Your task to perform on an android device: Clear the shopping cart on ebay.com. Add "jbl flip 4" to the cart on ebay.com Image 0: 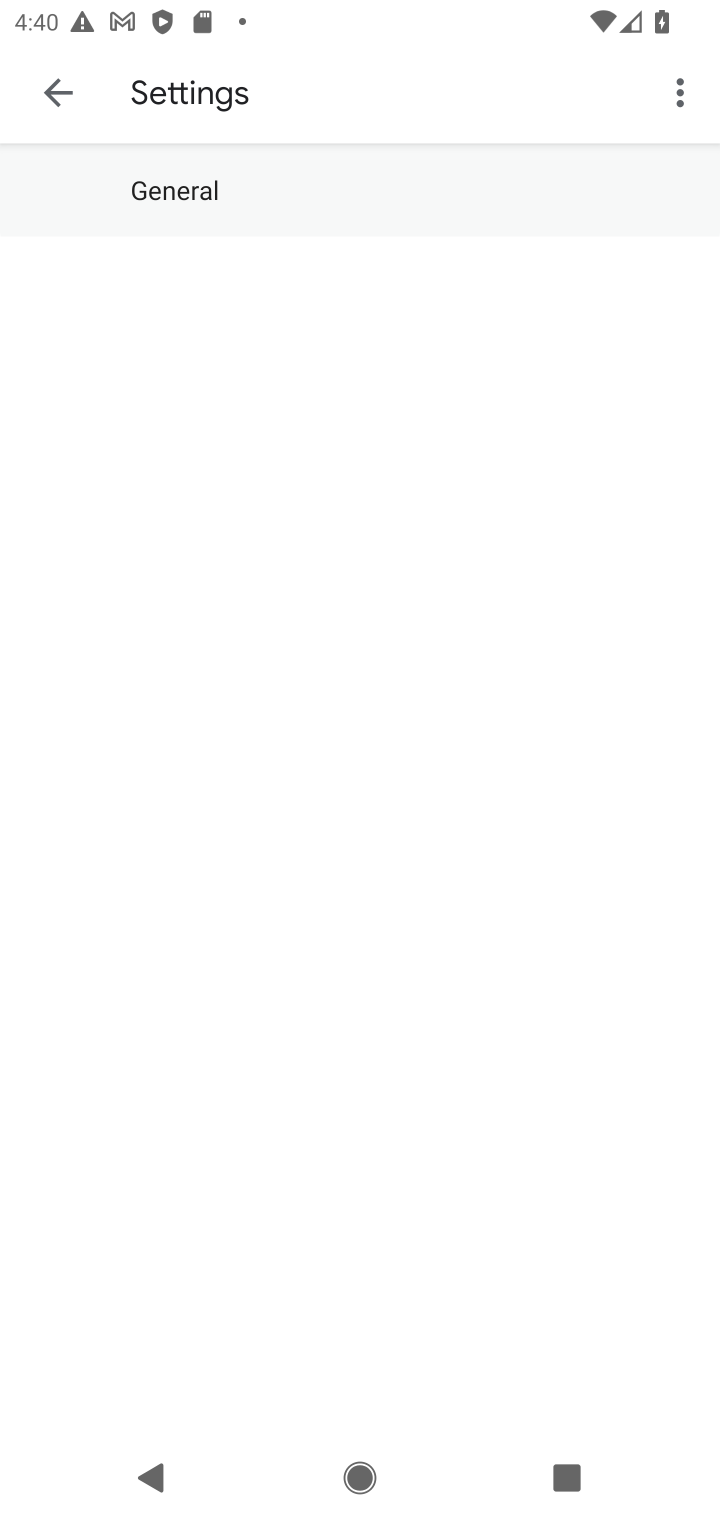
Step 0: press home button
Your task to perform on an android device: Clear the shopping cart on ebay.com. Add "jbl flip 4" to the cart on ebay.com Image 1: 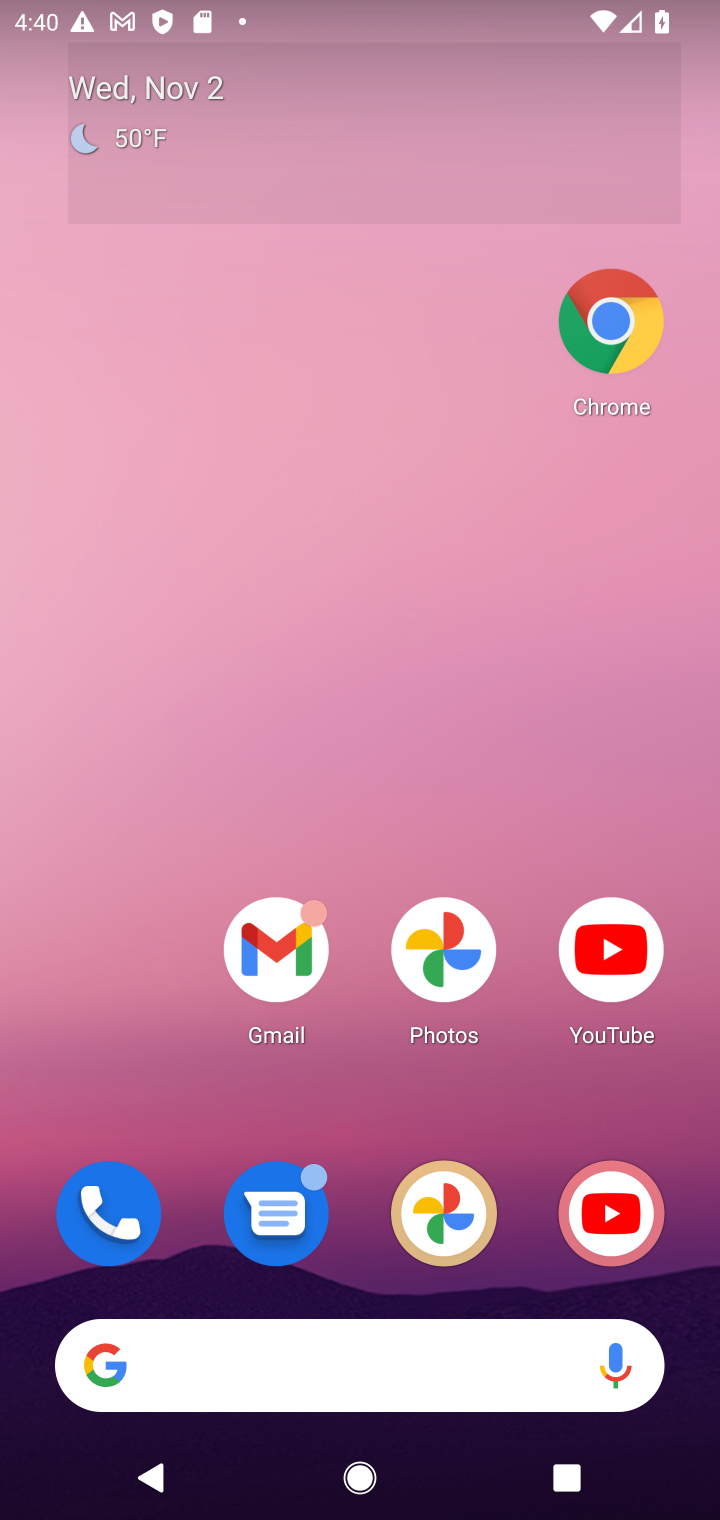
Step 1: drag from (420, 1267) to (454, 170)
Your task to perform on an android device: Clear the shopping cart on ebay.com. Add "jbl flip 4" to the cart on ebay.com Image 2: 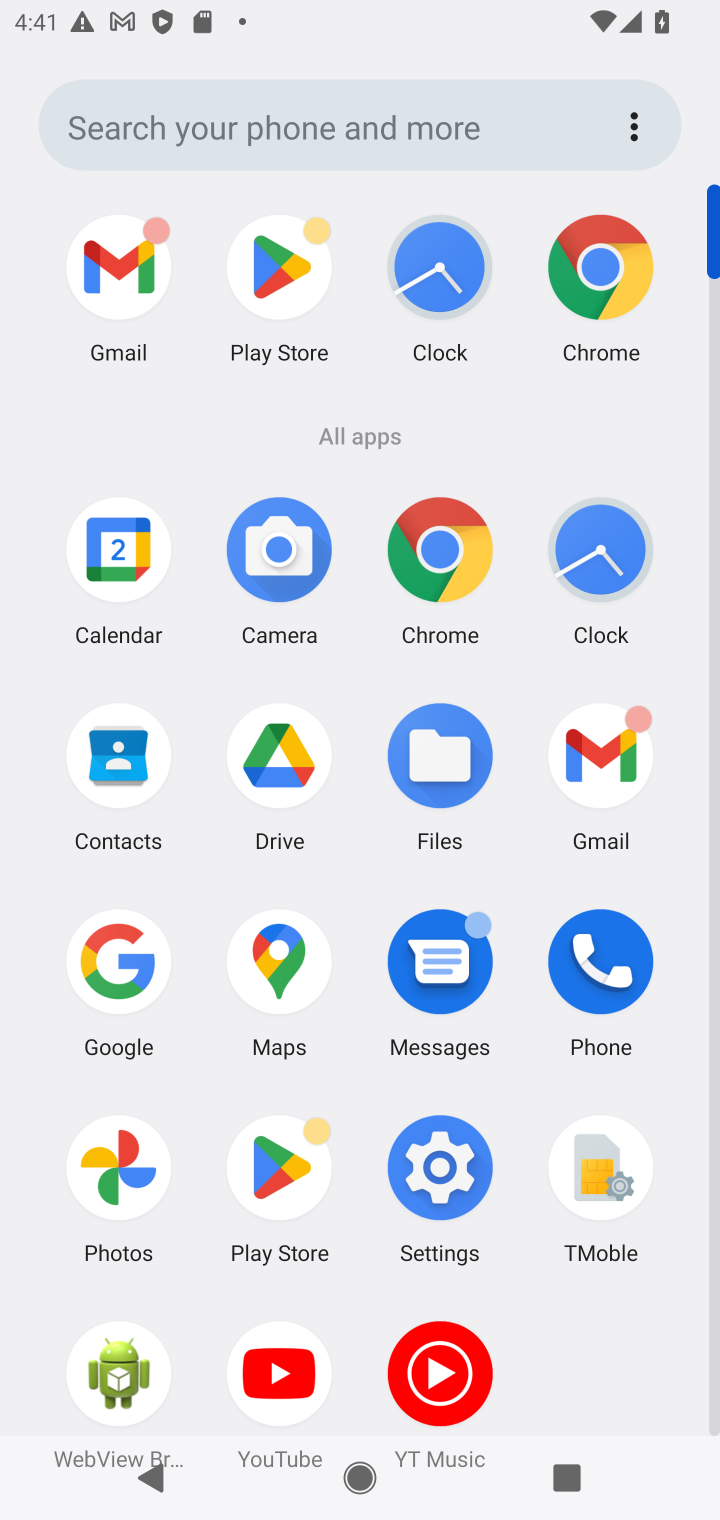
Step 2: click (99, 1007)
Your task to perform on an android device: Clear the shopping cart on ebay.com. Add "jbl flip 4" to the cart on ebay.com Image 3: 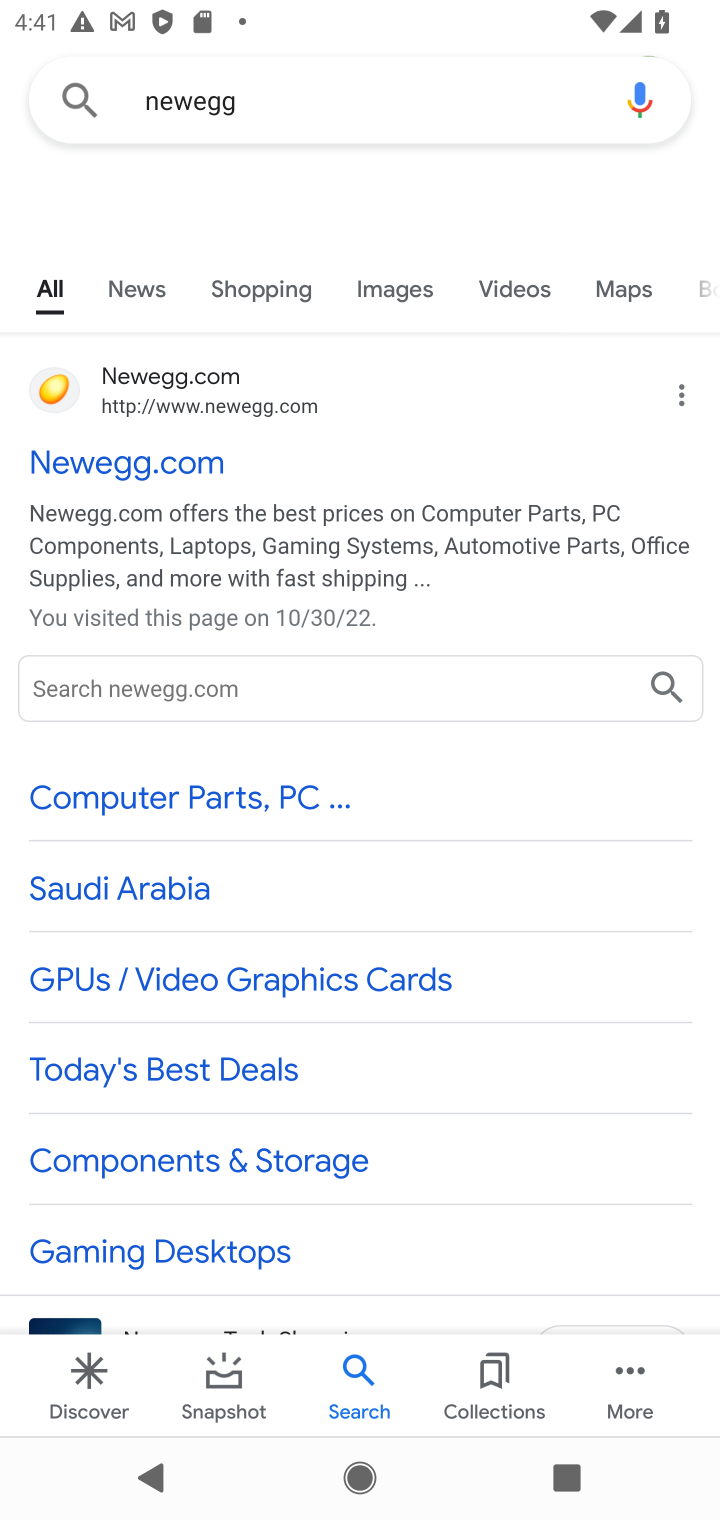
Step 3: click (426, 108)
Your task to perform on an android device: Clear the shopping cart on ebay.com. Add "jbl flip 4" to the cart on ebay.com Image 4: 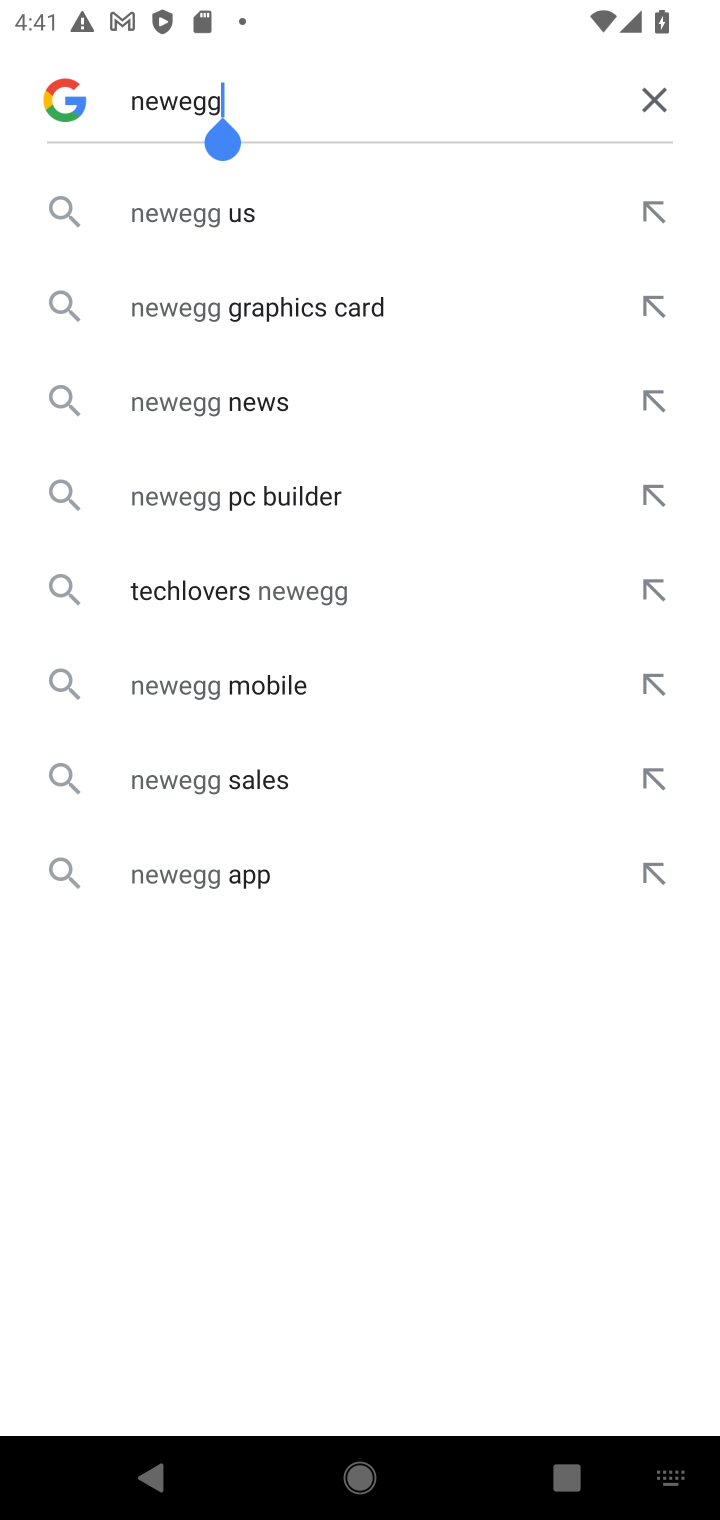
Step 4: click (652, 120)
Your task to perform on an android device: Clear the shopping cart on ebay.com. Add "jbl flip 4" to the cart on ebay.com Image 5: 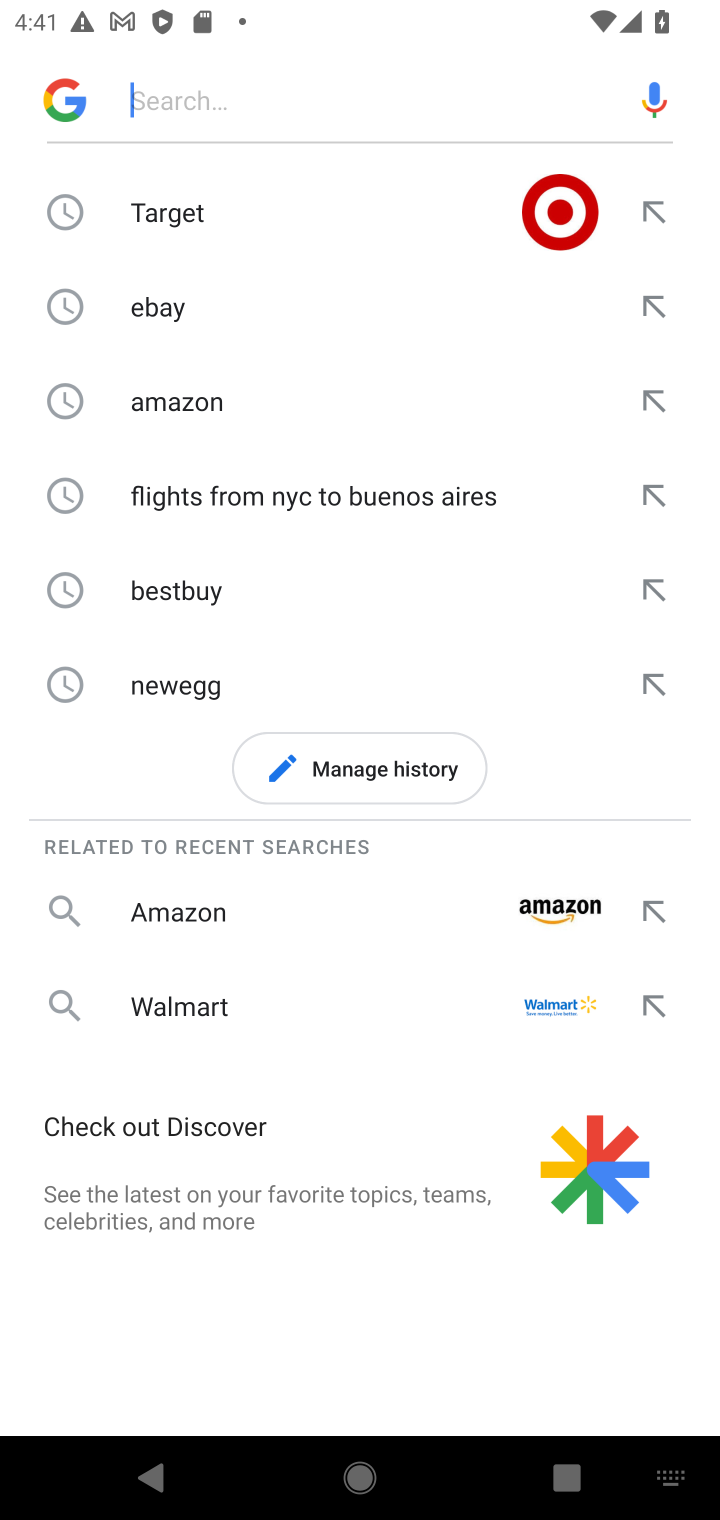
Step 5: type "ebay"
Your task to perform on an android device: Clear the shopping cart on ebay.com. Add "jbl flip 4" to the cart on ebay.com Image 6: 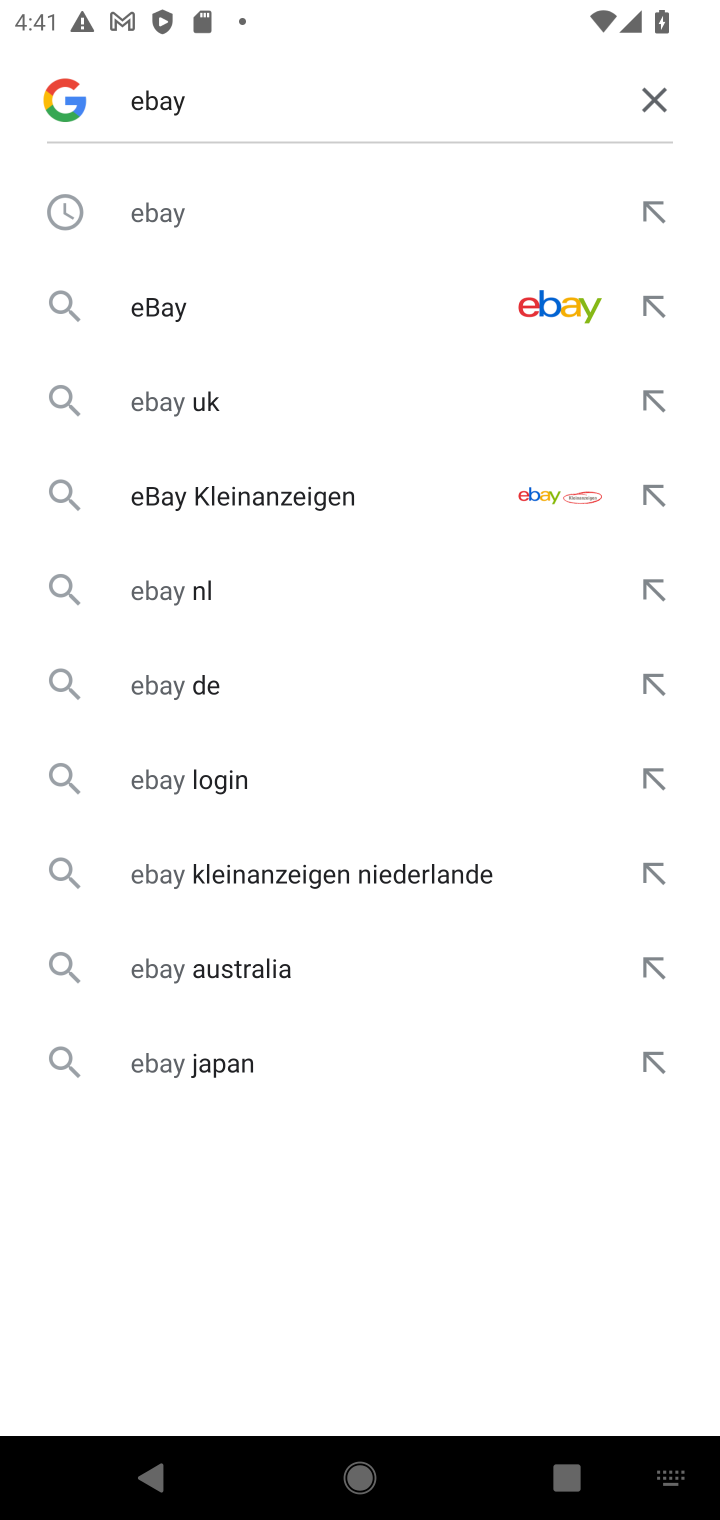
Step 6: click (444, 287)
Your task to perform on an android device: Clear the shopping cart on ebay.com. Add "jbl flip 4" to the cart on ebay.com Image 7: 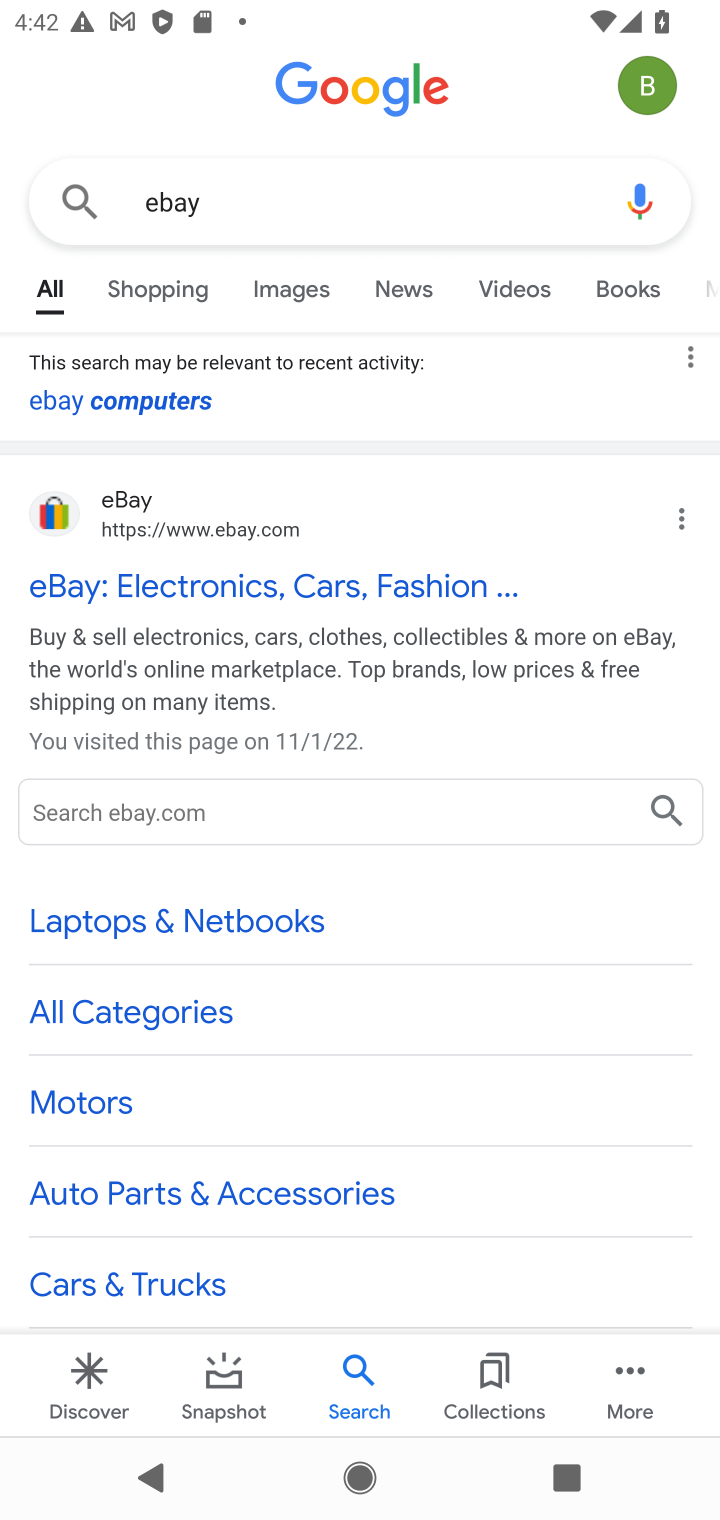
Step 7: click (206, 582)
Your task to perform on an android device: Clear the shopping cart on ebay.com. Add "jbl flip 4" to the cart on ebay.com Image 8: 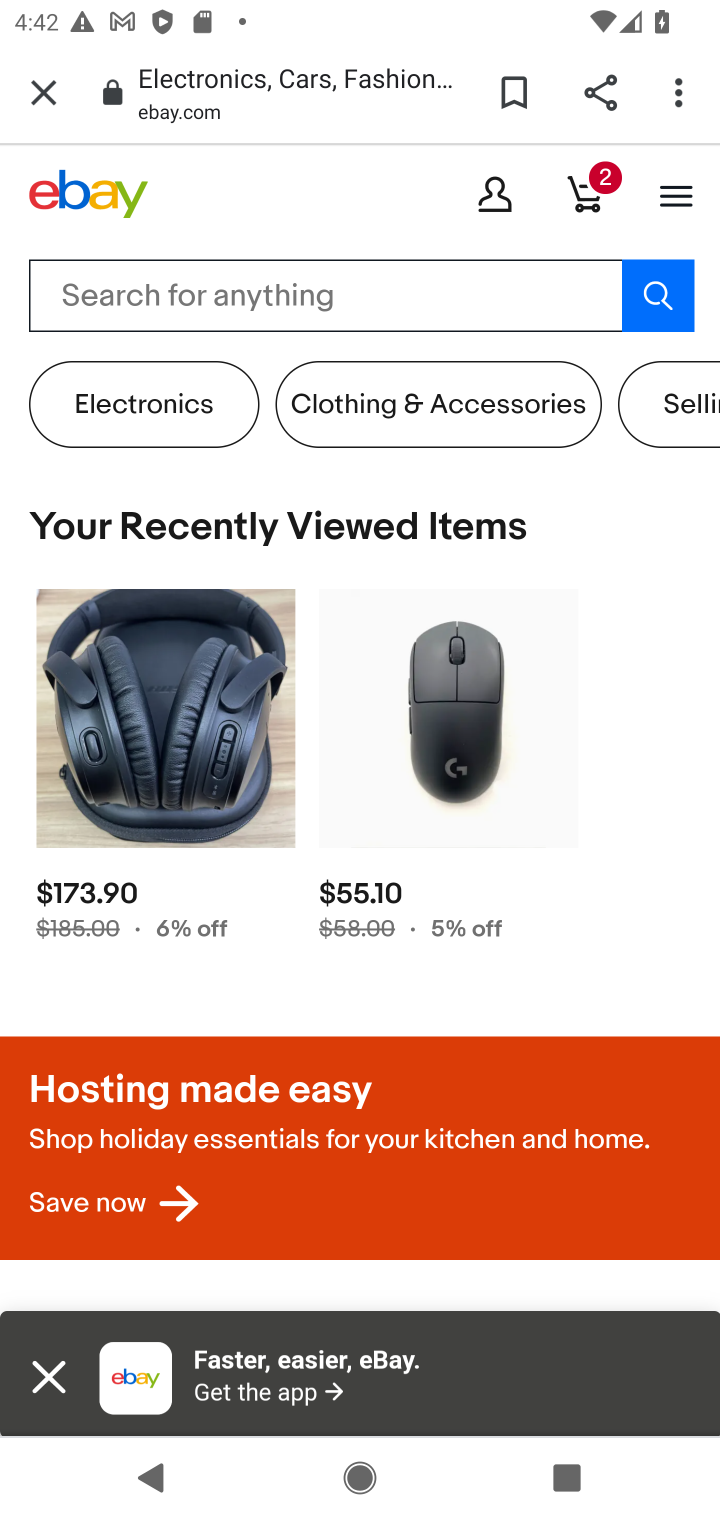
Step 8: click (337, 302)
Your task to perform on an android device: Clear the shopping cart on ebay.com. Add "jbl flip 4" to the cart on ebay.com Image 9: 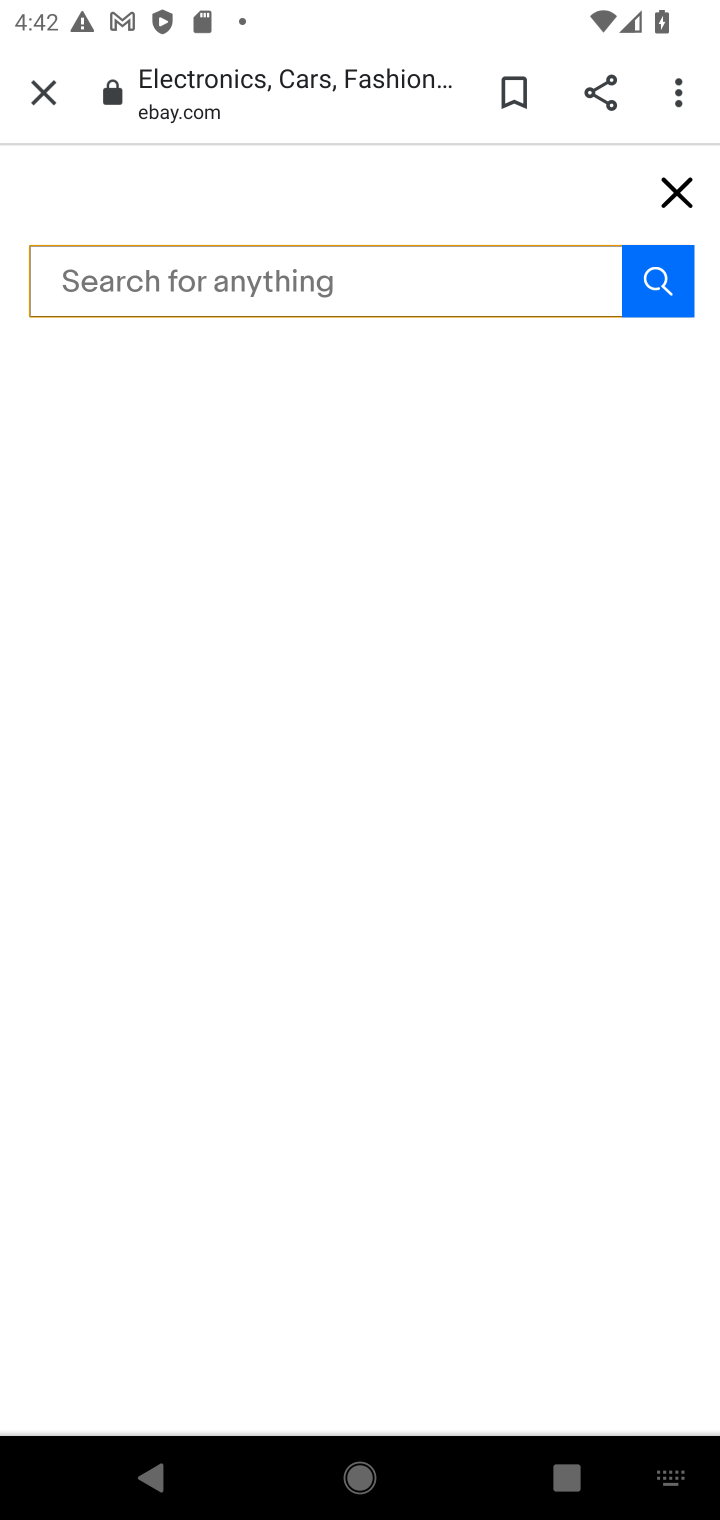
Step 9: type "jbl flip 4"
Your task to perform on an android device: Clear the shopping cart on ebay.com. Add "jbl flip 4" to the cart on ebay.com Image 10: 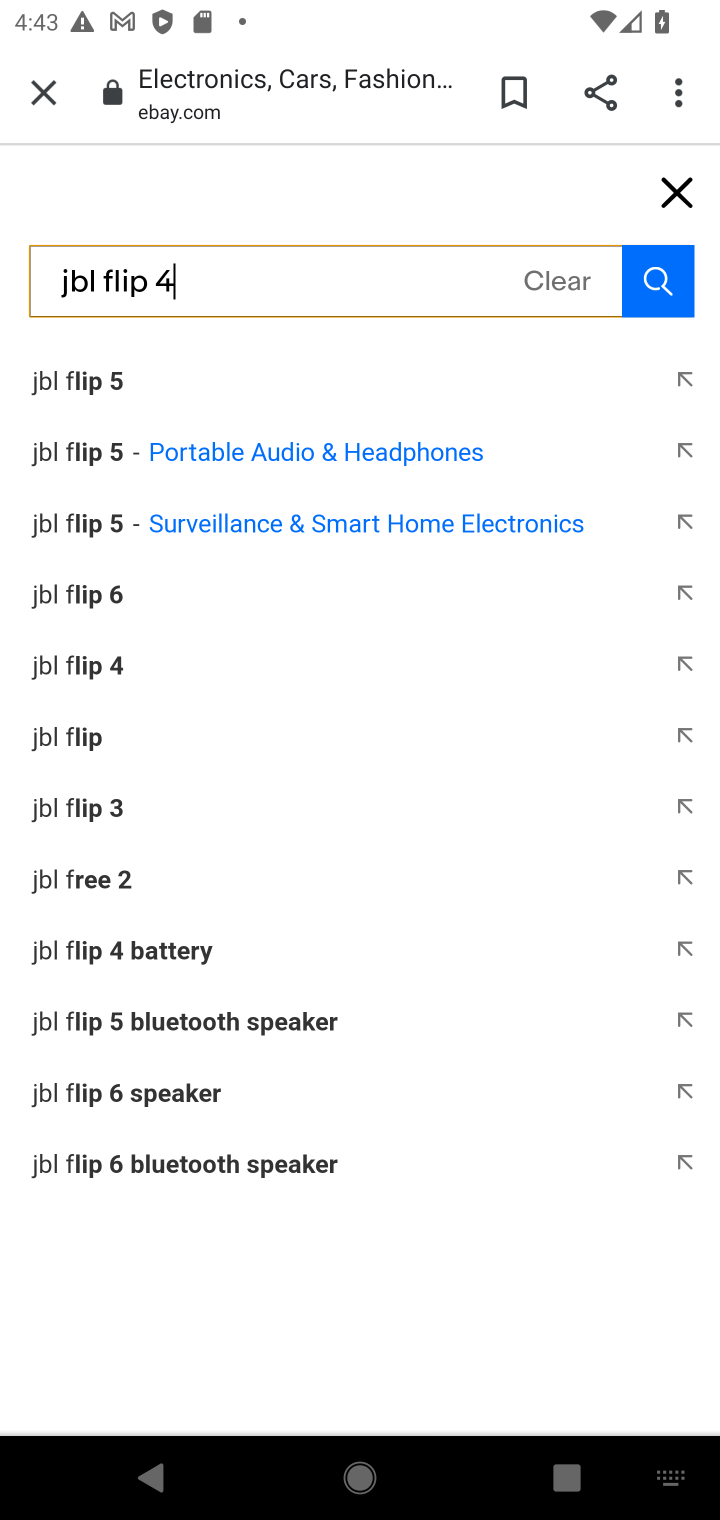
Step 10: click (147, 661)
Your task to perform on an android device: Clear the shopping cart on ebay.com. Add "jbl flip 4" to the cart on ebay.com Image 11: 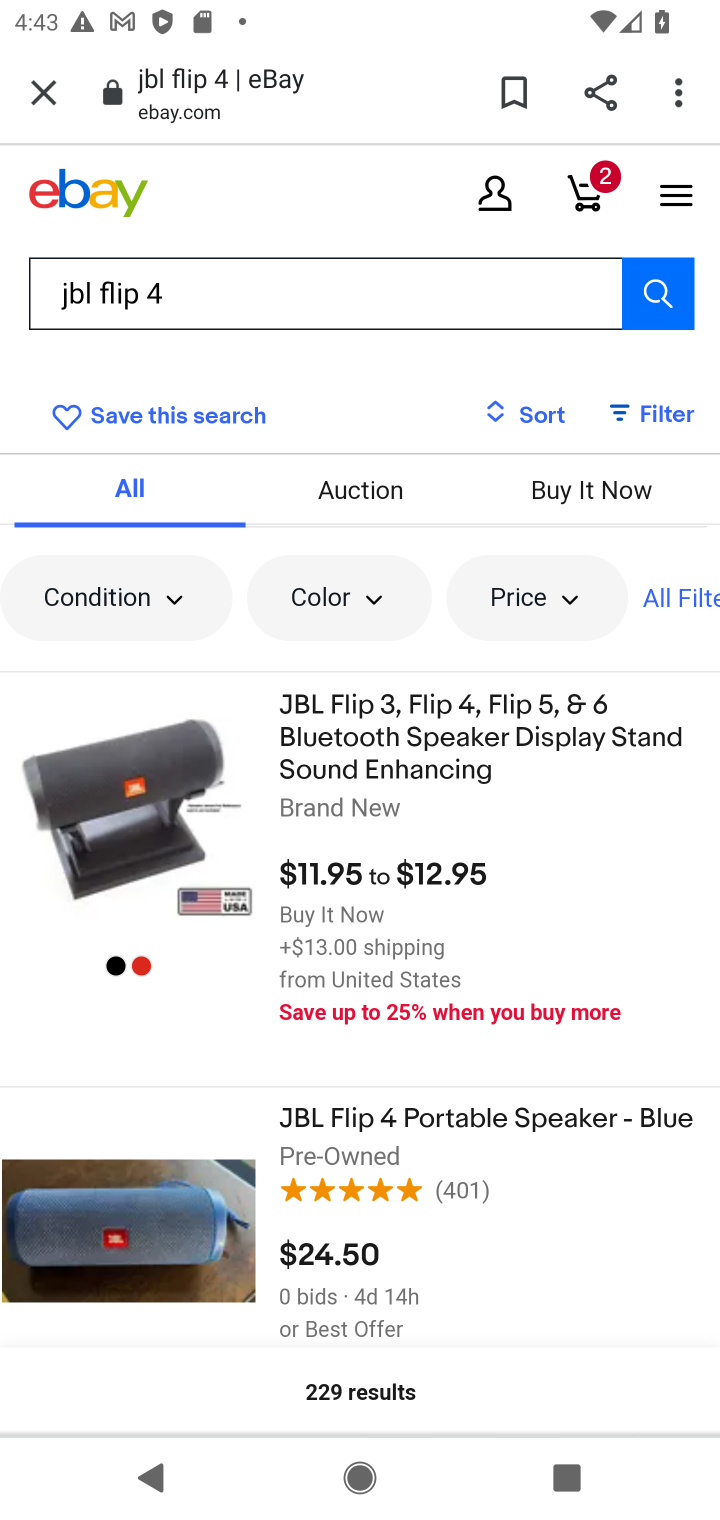
Step 11: click (363, 1133)
Your task to perform on an android device: Clear the shopping cart on ebay.com. Add "jbl flip 4" to the cart on ebay.com Image 12: 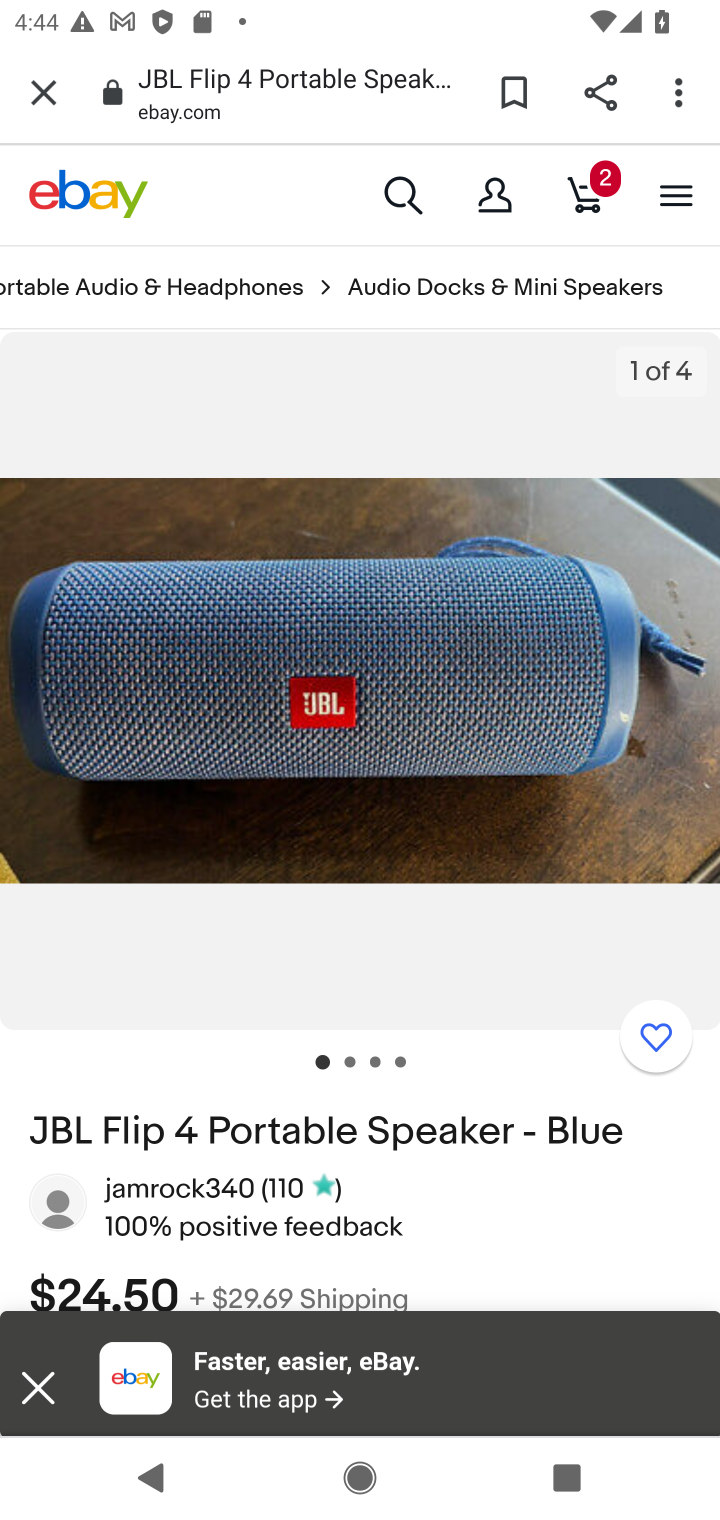
Step 12: drag from (409, 1120) to (504, 721)
Your task to perform on an android device: Clear the shopping cart on ebay.com. Add "jbl flip 4" to the cart on ebay.com Image 13: 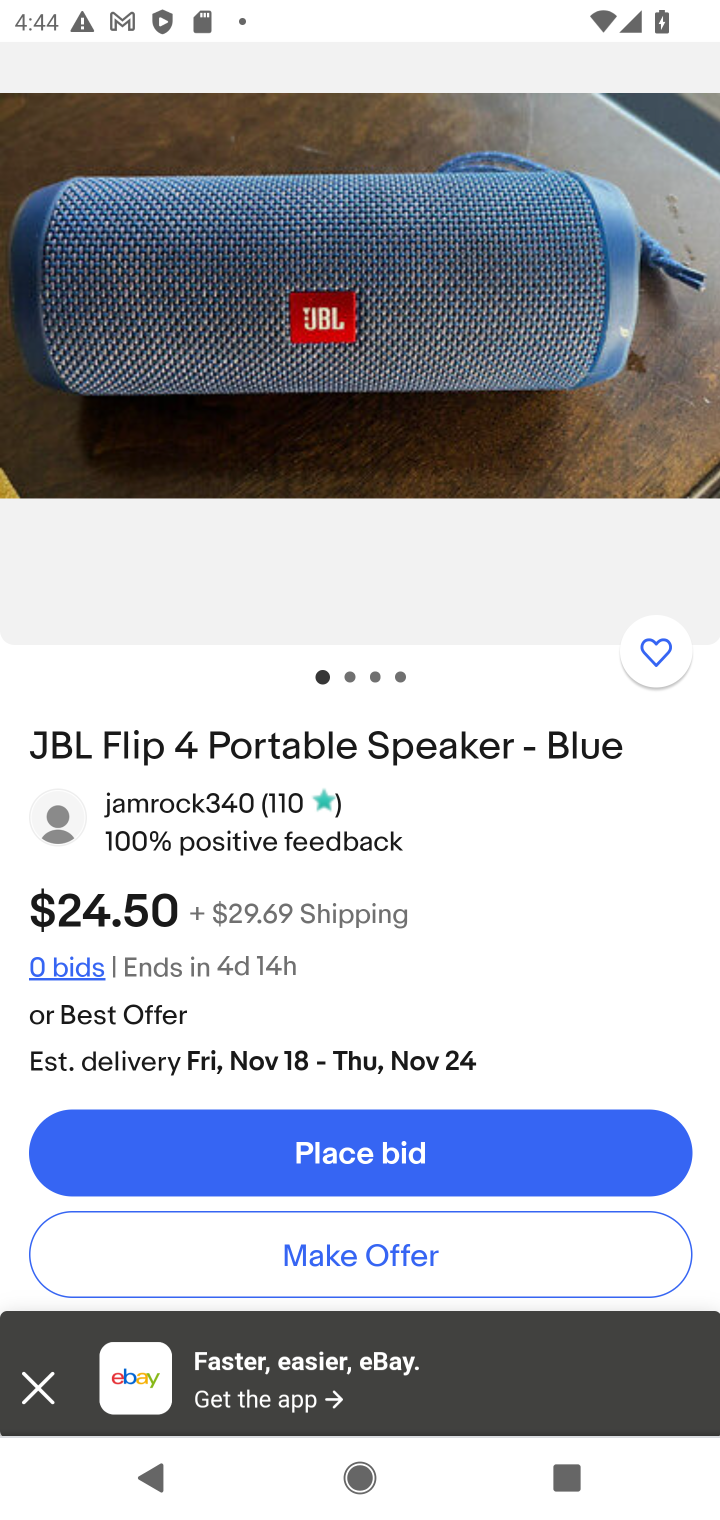
Step 13: click (513, 1137)
Your task to perform on an android device: Clear the shopping cart on ebay.com. Add "jbl flip 4" to the cart on ebay.com Image 14: 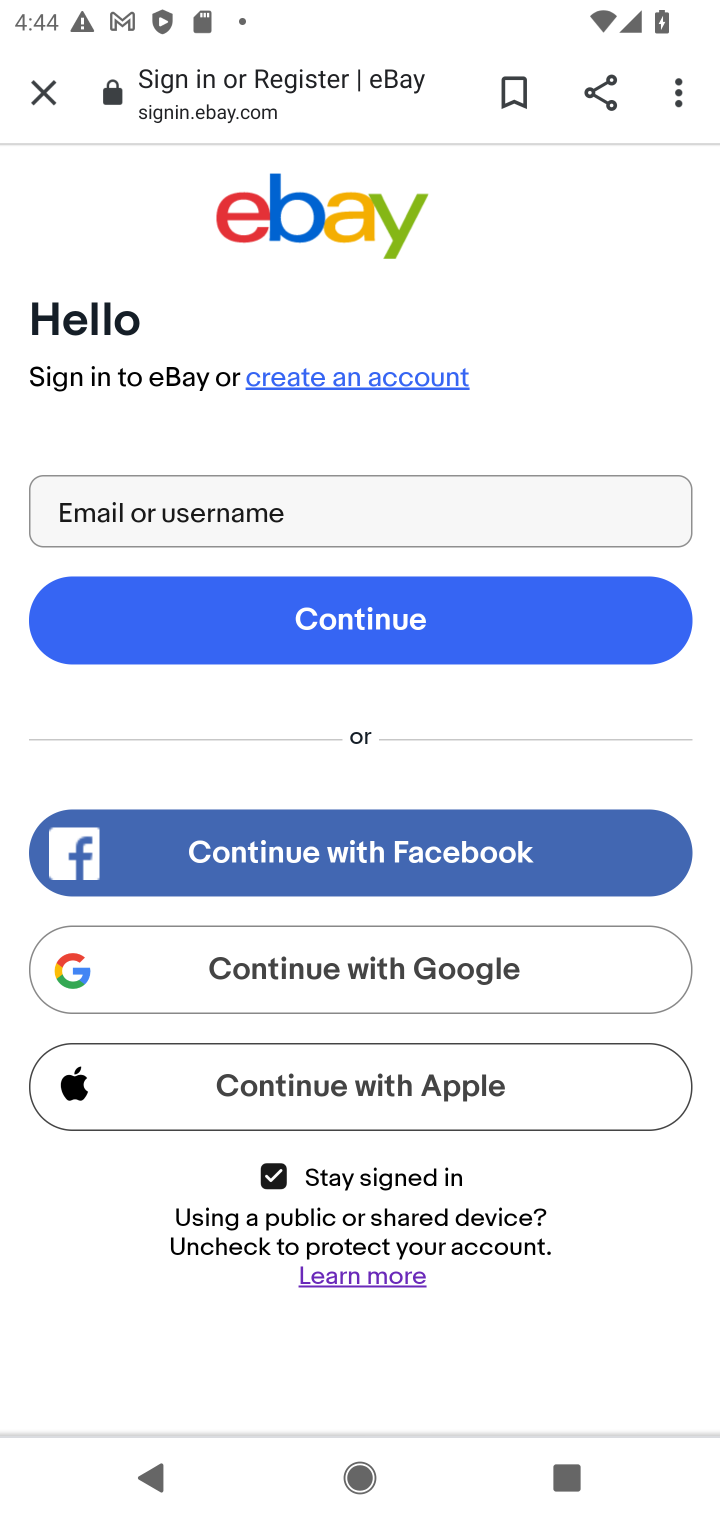
Step 14: task complete